Your task to perform on an android device: allow cookies in the chrome app Image 0: 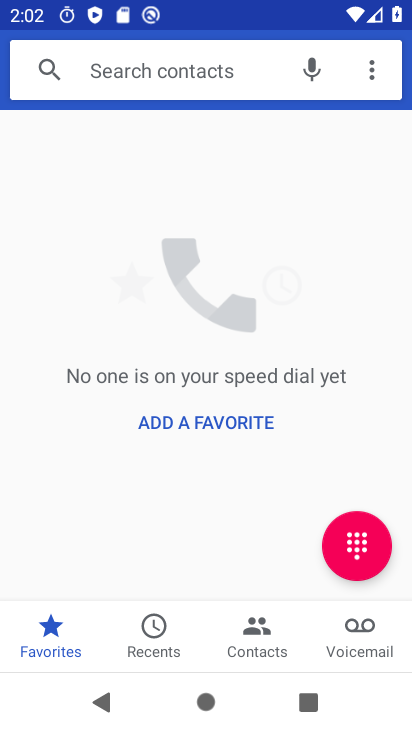
Step 0: press back button
Your task to perform on an android device: allow cookies in the chrome app Image 1: 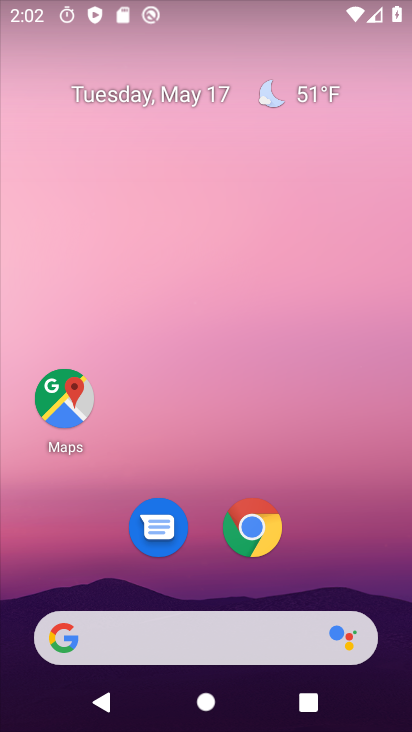
Step 1: click (253, 526)
Your task to perform on an android device: allow cookies in the chrome app Image 2: 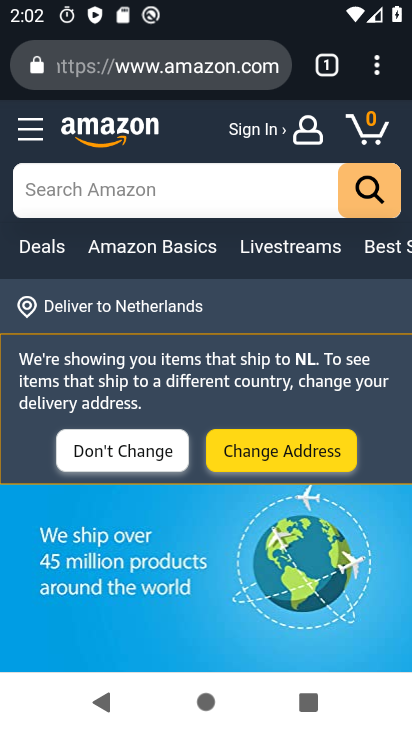
Step 2: click (378, 69)
Your task to perform on an android device: allow cookies in the chrome app Image 3: 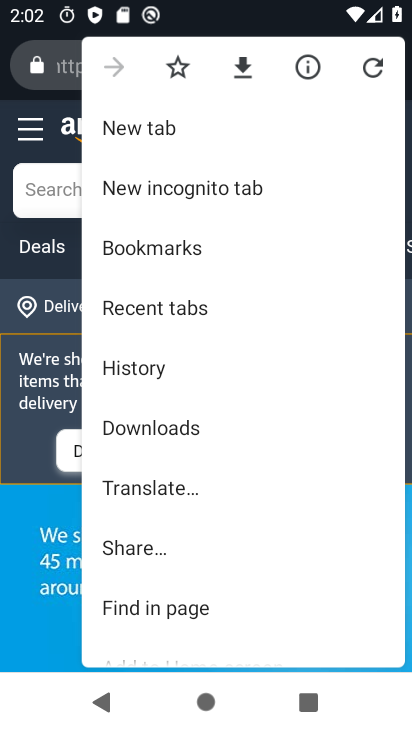
Step 3: drag from (189, 522) to (241, 435)
Your task to perform on an android device: allow cookies in the chrome app Image 4: 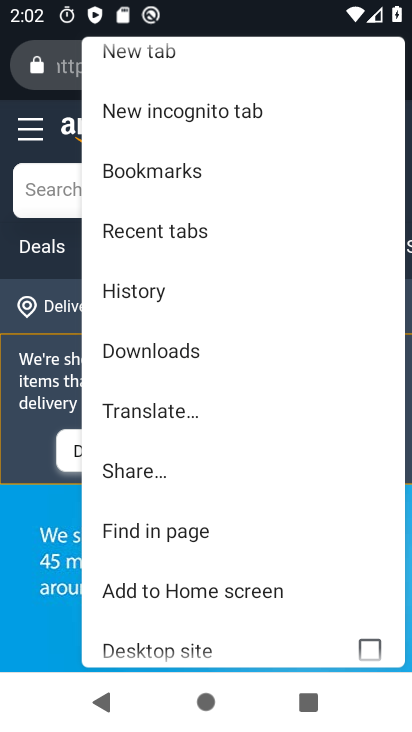
Step 4: drag from (200, 558) to (258, 483)
Your task to perform on an android device: allow cookies in the chrome app Image 5: 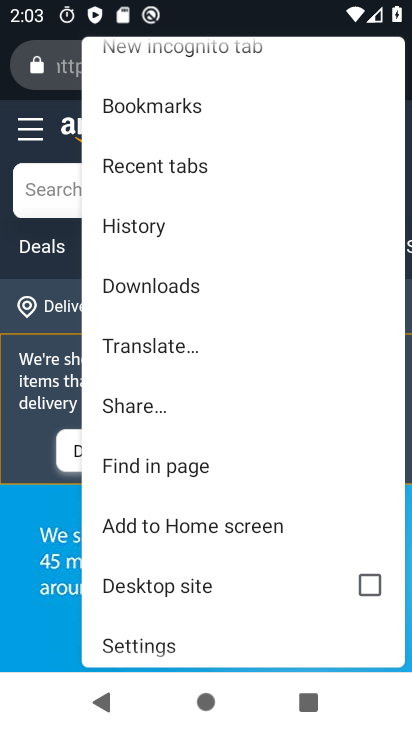
Step 5: drag from (235, 598) to (265, 502)
Your task to perform on an android device: allow cookies in the chrome app Image 6: 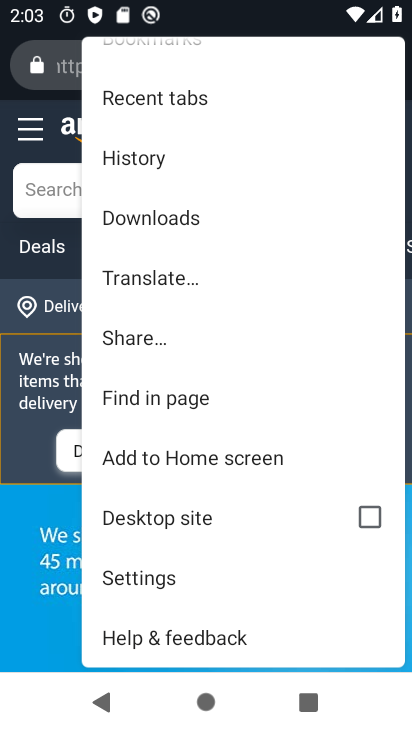
Step 6: click (149, 584)
Your task to perform on an android device: allow cookies in the chrome app Image 7: 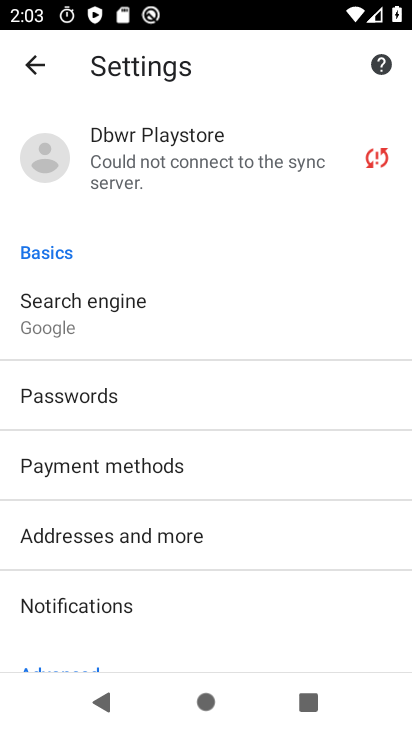
Step 7: drag from (122, 520) to (176, 434)
Your task to perform on an android device: allow cookies in the chrome app Image 8: 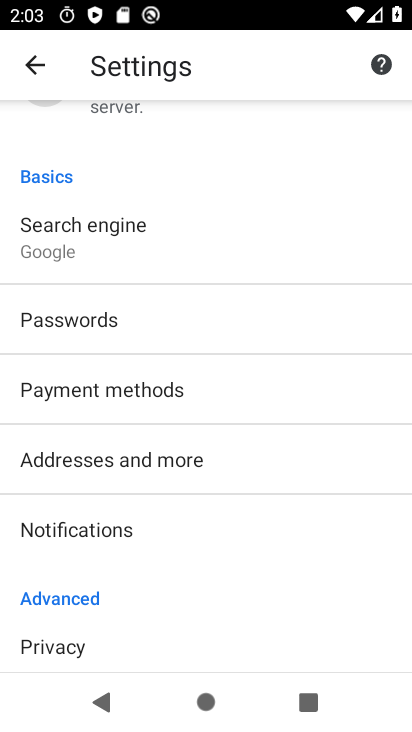
Step 8: drag from (112, 550) to (157, 485)
Your task to perform on an android device: allow cookies in the chrome app Image 9: 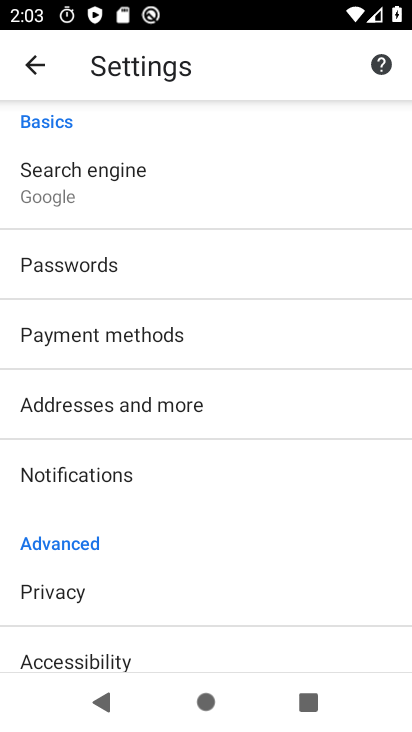
Step 9: drag from (114, 541) to (161, 471)
Your task to perform on an android device: allow cookies in the chrome app Image 10: 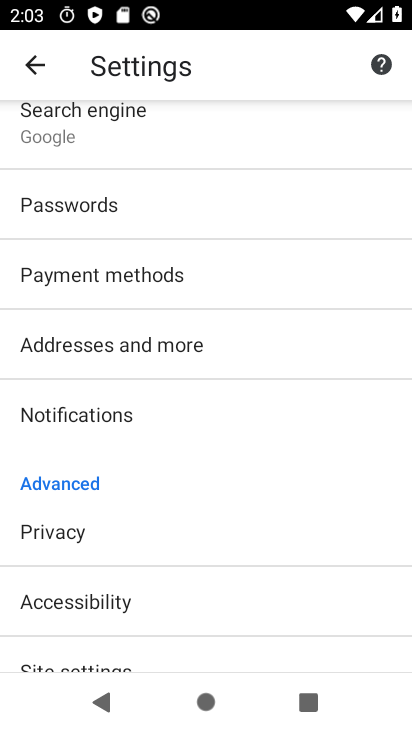
Step 10: drag from (96, 573) to (110, 526)
Your task to perform on an android device: allow cookies in the chrome app Image 11: 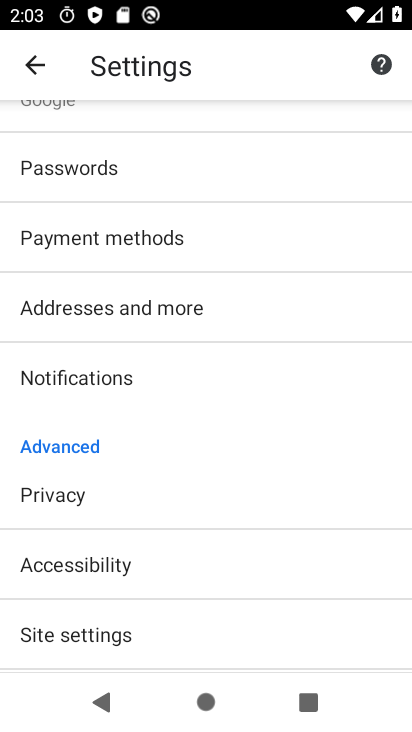
Step 11: drag from (97, 604) to (140, 535)
Your task to perform on an android device: allow cookies in the chrome app Image 12: 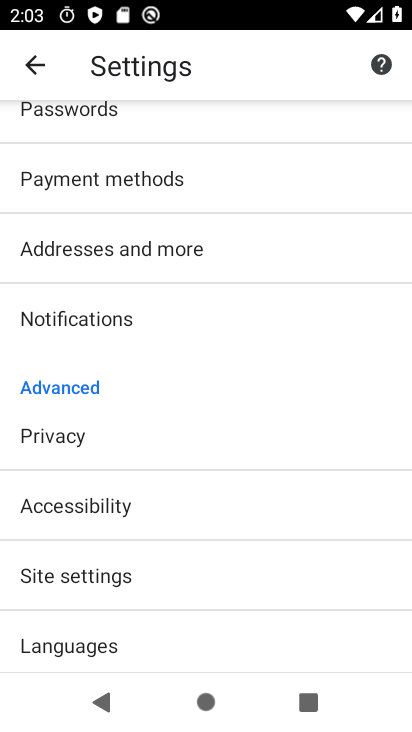
Step 12: click (105, 572)
Your task to perform on an android device: allow cookies in the chrome app Image 13: 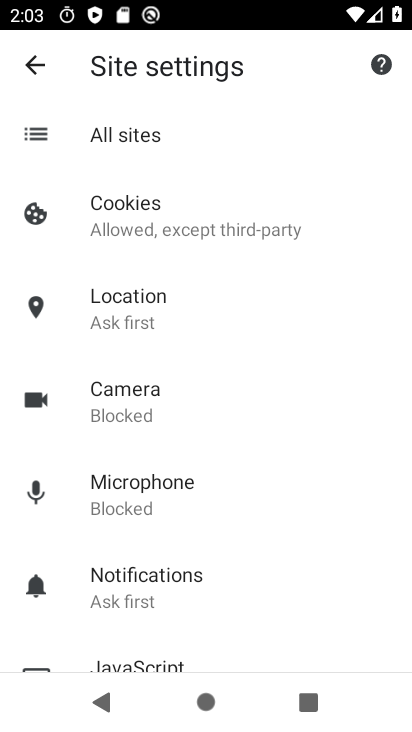
Step 13: click (170, 235)
Your task to perform on an android device: allow cookies in the chrome app Image 14: 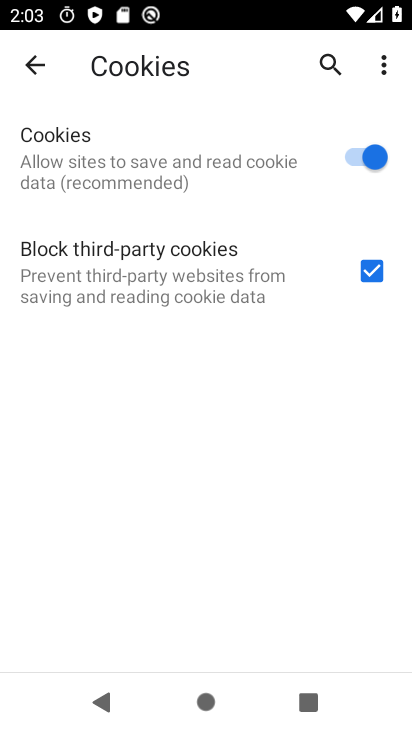
Step 14: task complete